Your task to perform on an android device: Open Google Image 0: 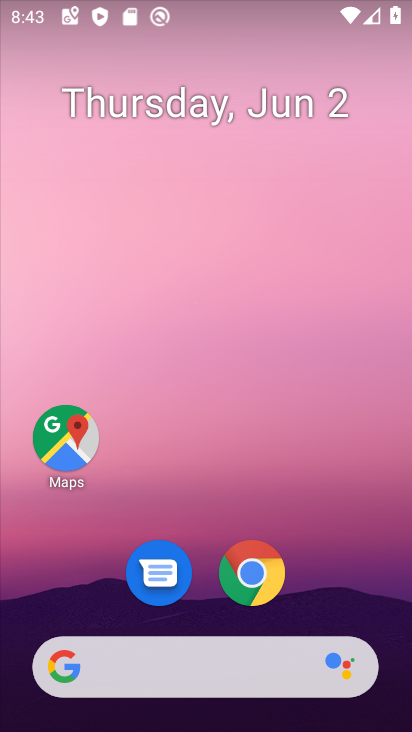
Step 0: press home button
Your task to perform on an android device: Open Google Image 1: 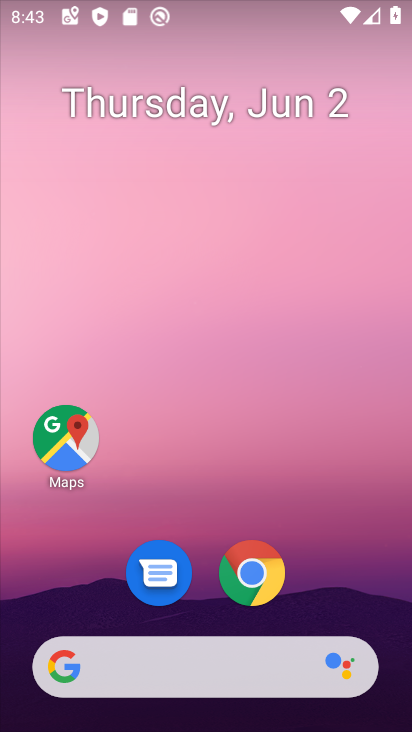
Step 1: drag from (388, 574) to (246, 50)
Your task to perform on an android device: Open Google Image 2: 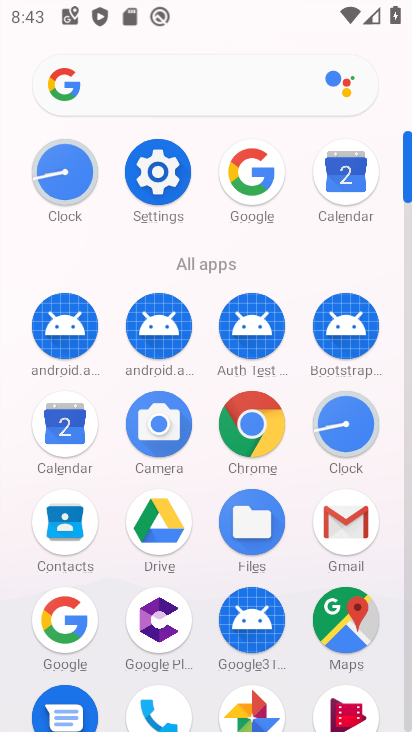
Step 2: click (51, 630)
Your task to perform on an android device: Open Google Image 3: 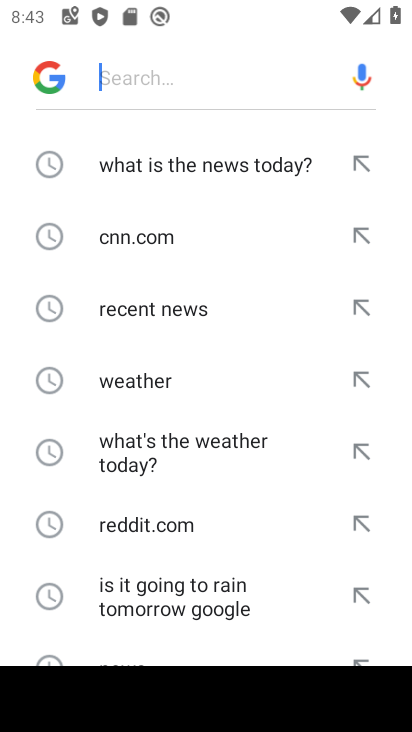
Step 3: task complete